Your task to perform on an android device: open a new tab in the chrome app Image 0: 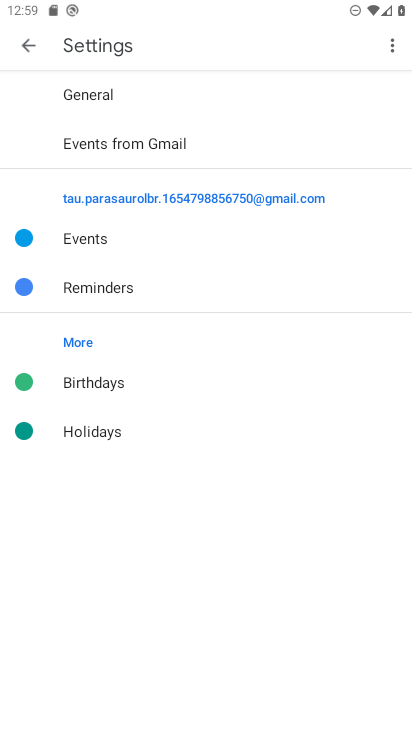
Step 0: press home button
Your task to perform on an android device: open a new tab in the chrome app Image 1: 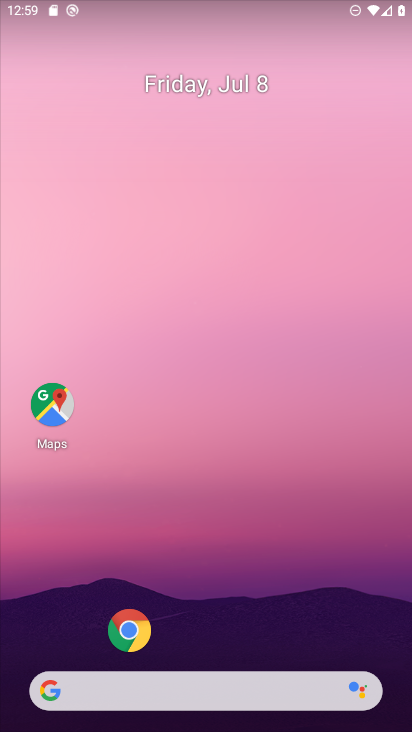
Step 1: drag from (291, 669) to (237, 69)
Your task to perform on an android device: open a new tab in the chrome app Image 2: 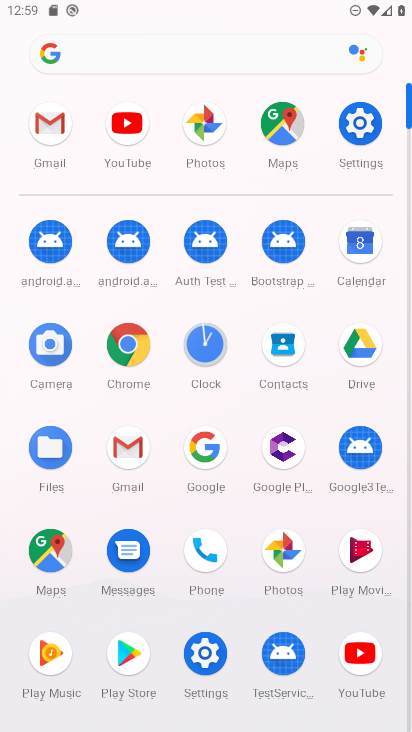
Step 2: click (137, 348)
Your task to perform on an android device: open a new tab in the chrome app Image 3: 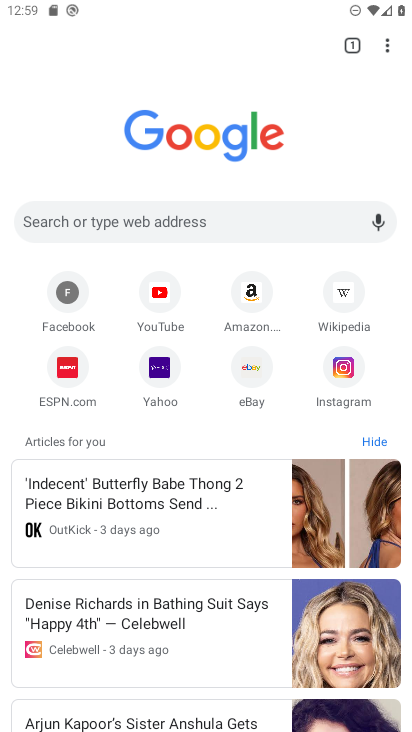
Step 3: task complete